Your task to perform on an android device: delete the emails in spam in the gmail app Image 0: 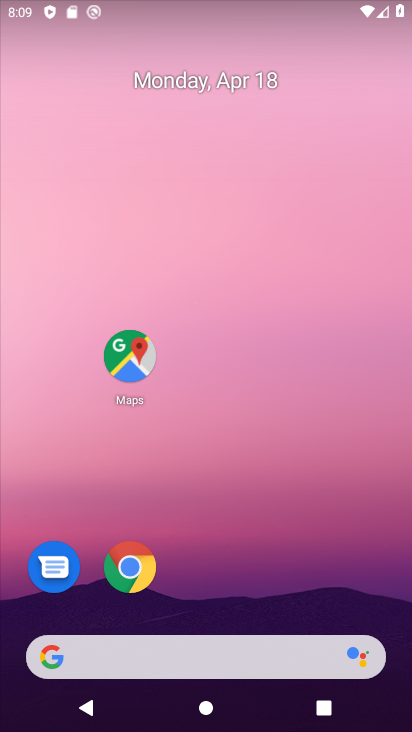
Step 0: click (202, 422)
Your task to perform on an android device: delete the emails in spam in the gmail app Image 1: 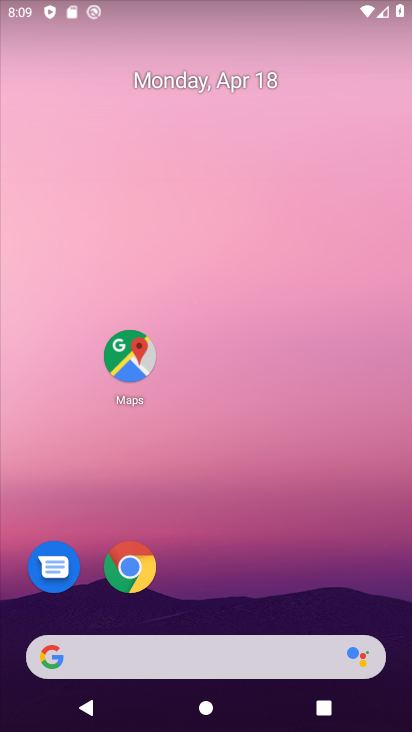
Step 1: drag from (239, 678) to (412, 105)
Your task to perform on an android device: delete the emails in spam in the gmail app Image 2: 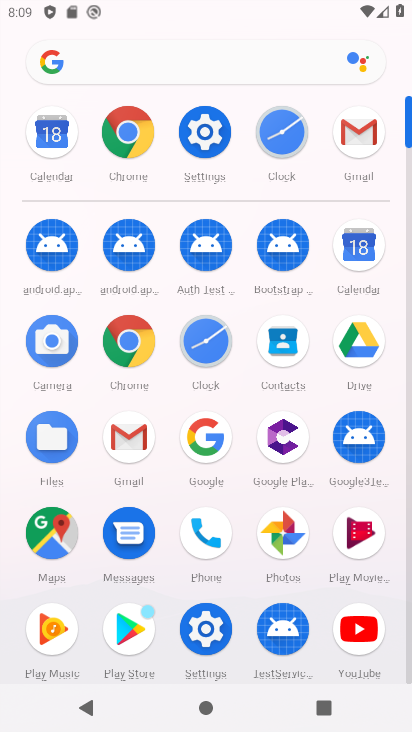
Step 2: click (132, 432)
Your task to perform on an android device: delete the emails in spam in the gmail app Image 3: 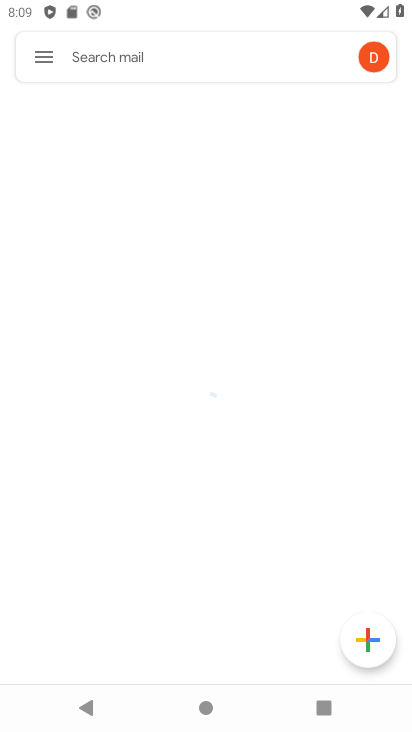
Step 3: click (34, 58)
Your task to perform on an android device: delete the emails in spam in the gmail app Image 4: 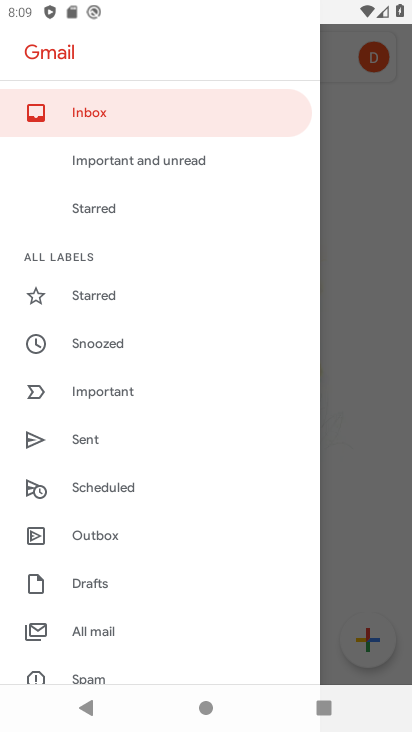
Step 4: click (96, 672)
Your task to perform on an android device: delete the emails in spam in the gmail app Image 5: 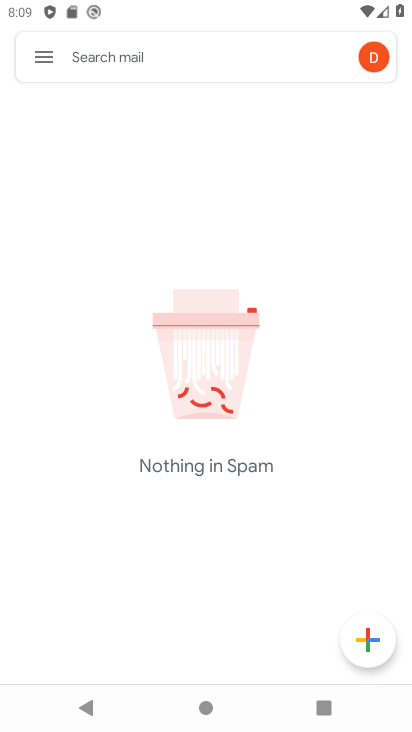
Step 5: task complete